Your task to perform on an android device: open app "Microsoft Excel" Image 0: 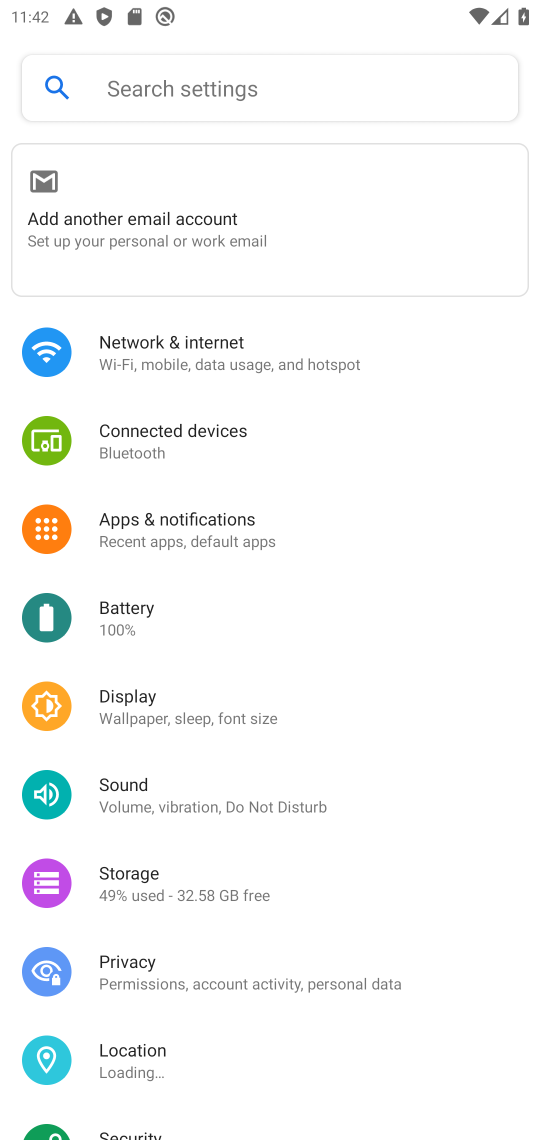
Step 0: drag from (449, 1022) to (458, 549)
Your task to perform on an android device: open app "Microsoft Excel" Image 1: 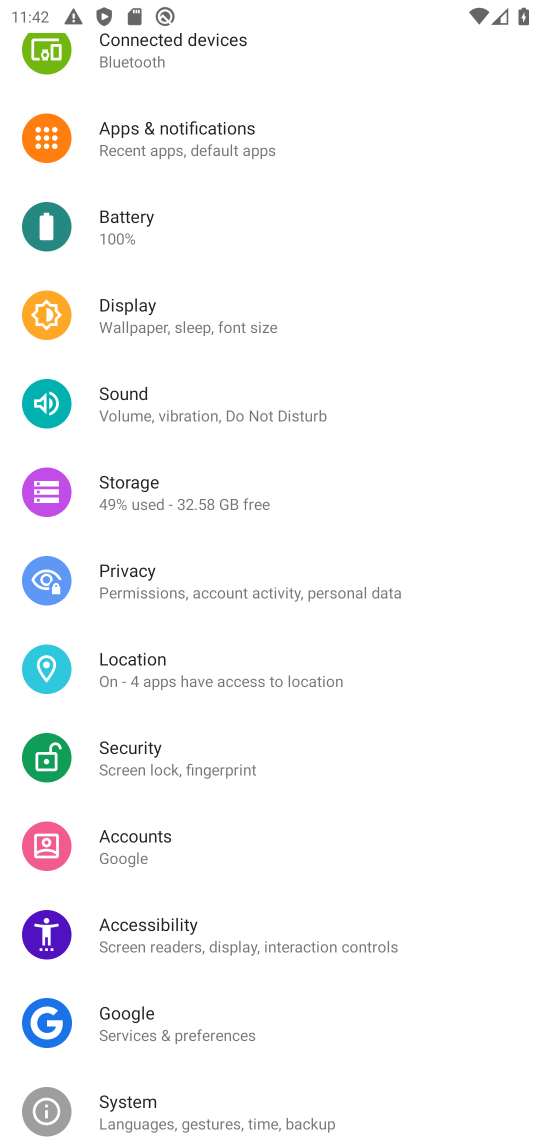
Step 1: drag from (450, 922) to (458, 624)
Your task to perform on an android device: open app "Microsoft Excel" Image 2: 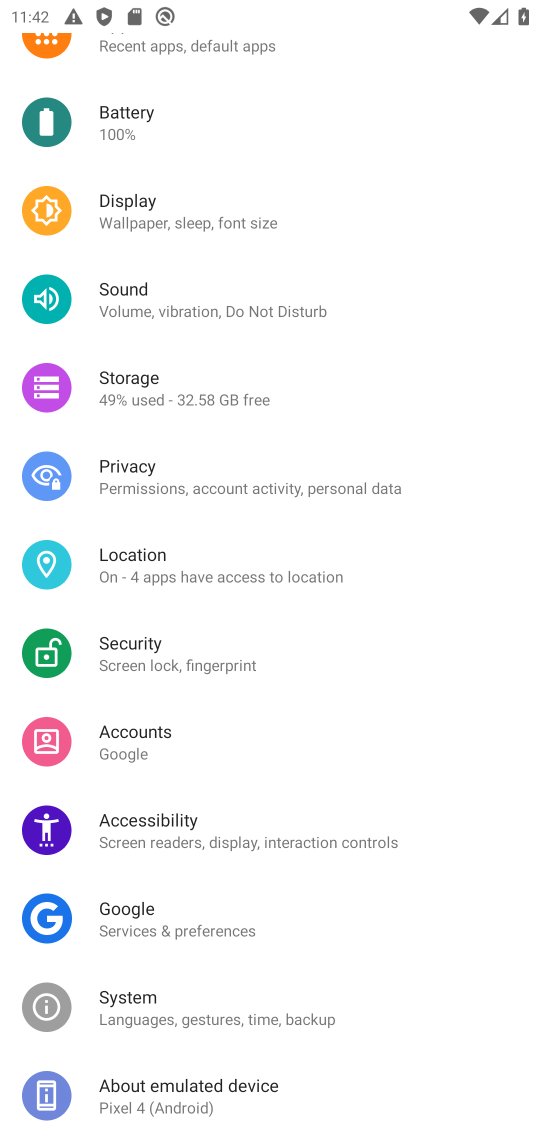
Step 2: drag from (458, 407) to (446, 695)
Your task to perform on an android device: open app "Microsoft Excel" Image 3: 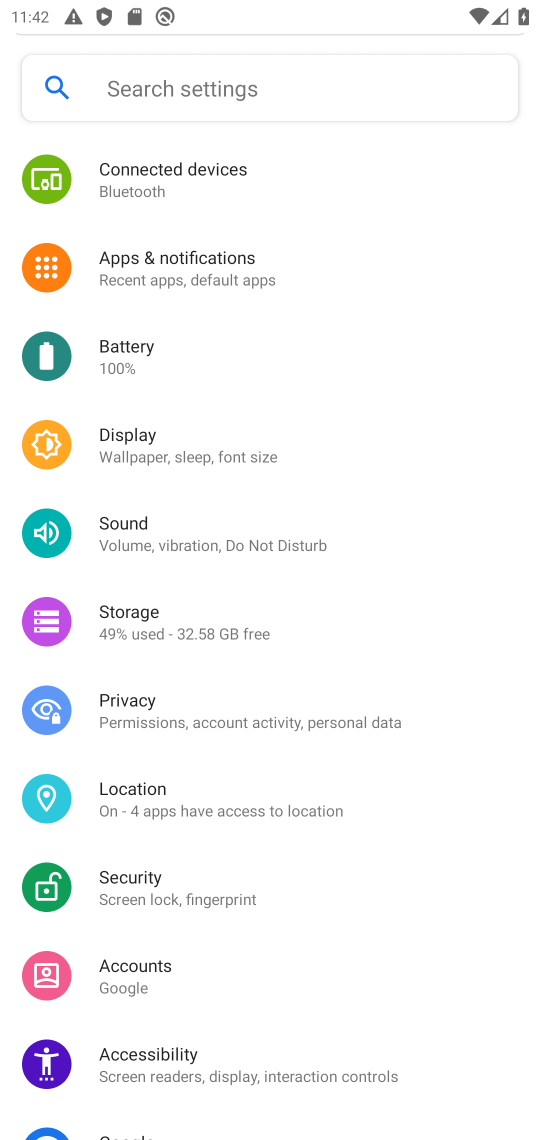
Step 3: drag from (440, 359) to (459, 697)
Your task to perform on an android device: open app "Microsoft Excel" Image 4: 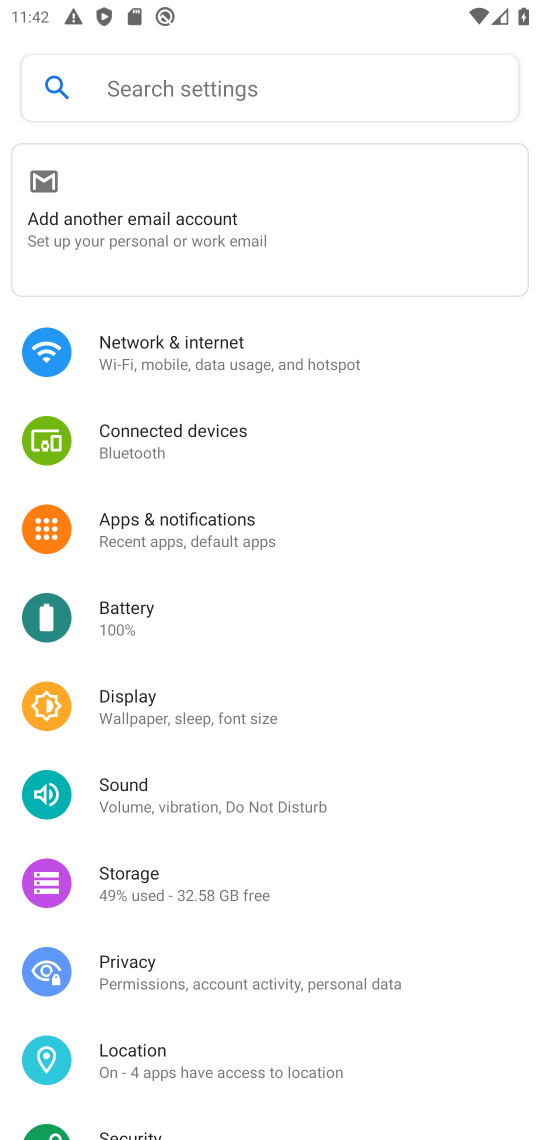
Step 4: press home button
Your task to perform on an android device: open app "Microsoft Excel" Image 5: 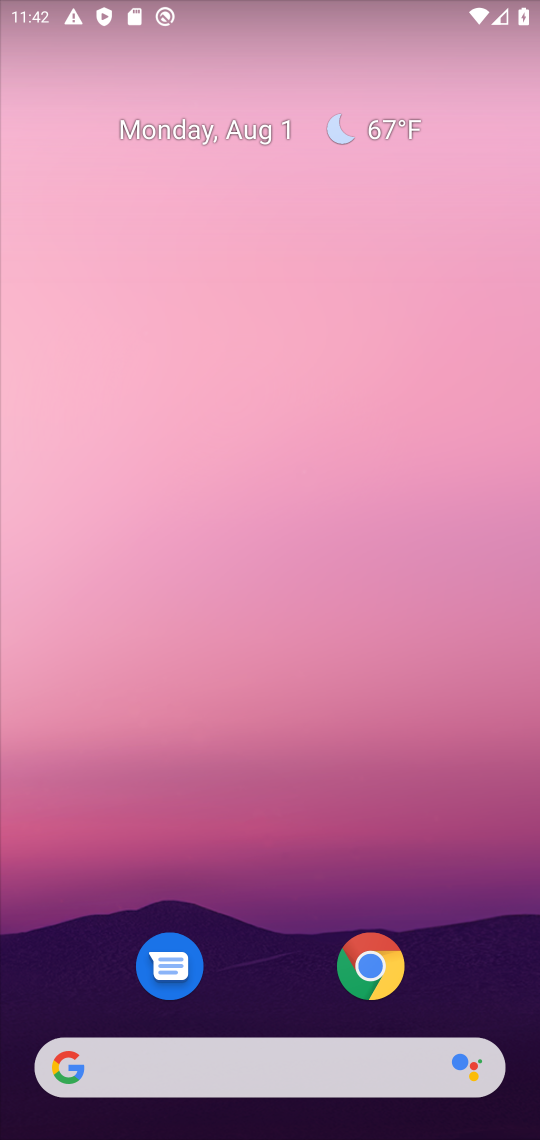
Step 5: drag from (464, 810) to (483, 196)
Your task to perform on an android device: open app "Microsoft Excel" Image 6: 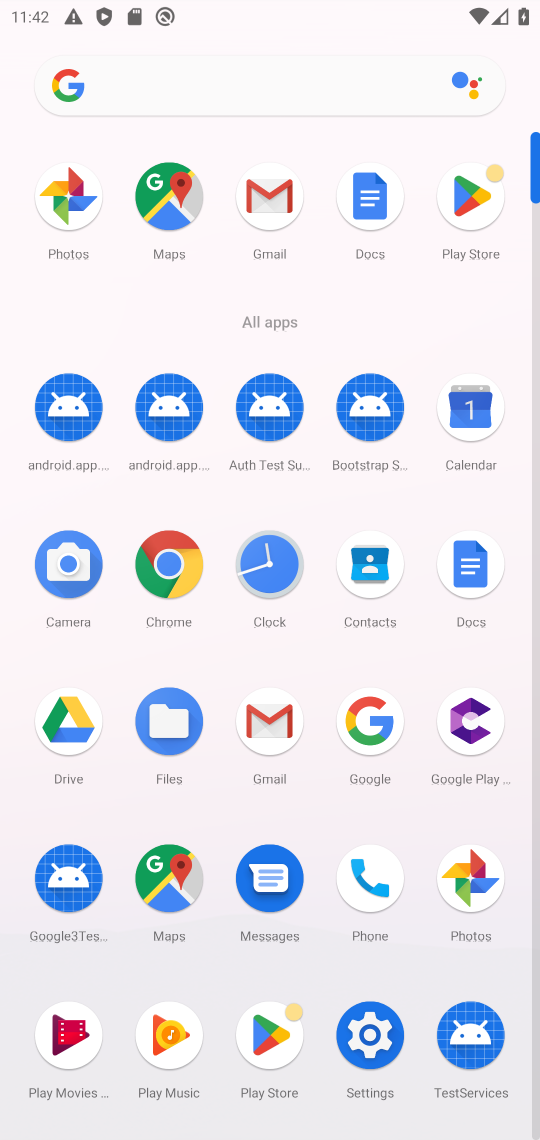
Step 6: click (471, 208)
Your task to perform on an android device: open app "Microsoft Excel" Image 7: 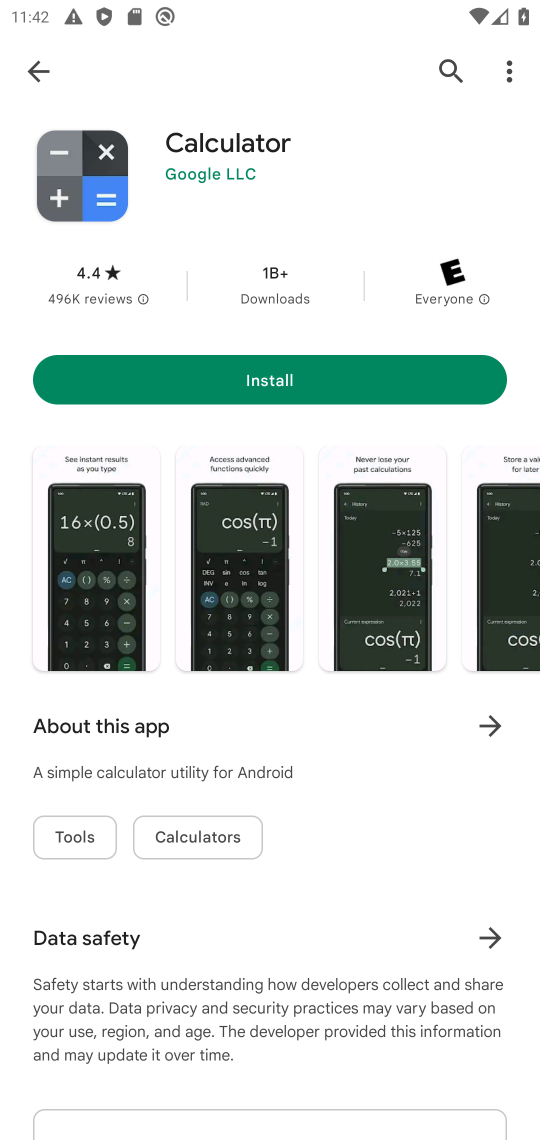
Step 7: click (445, 65)
Your task to perform on an android device: open app "Microsoft Excel" Image 8: 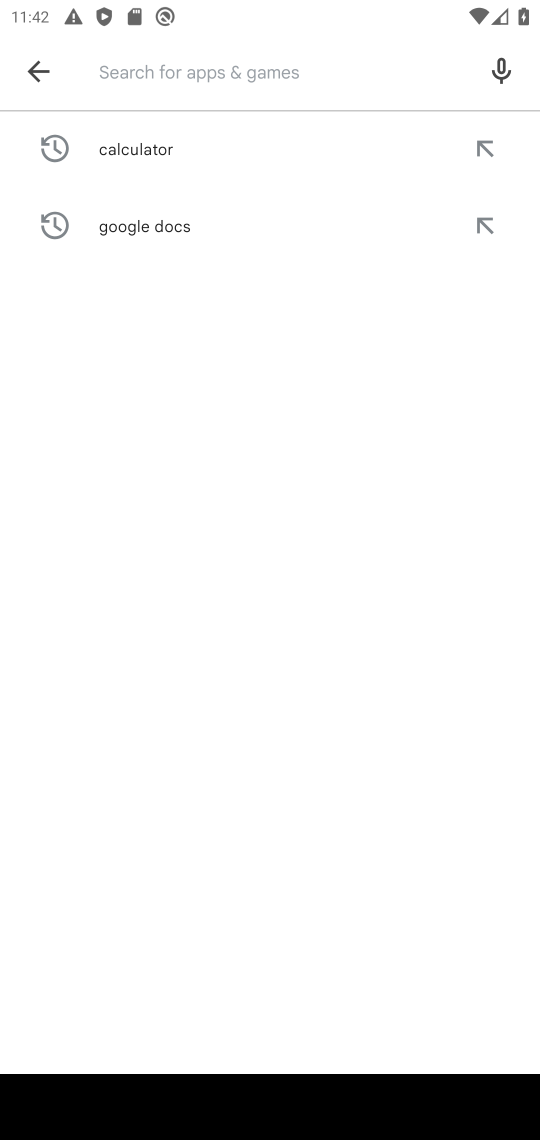
Step 8: click (318, 74)
Your task to perform on an android device: open app "Microsoft Excel" Image 9: 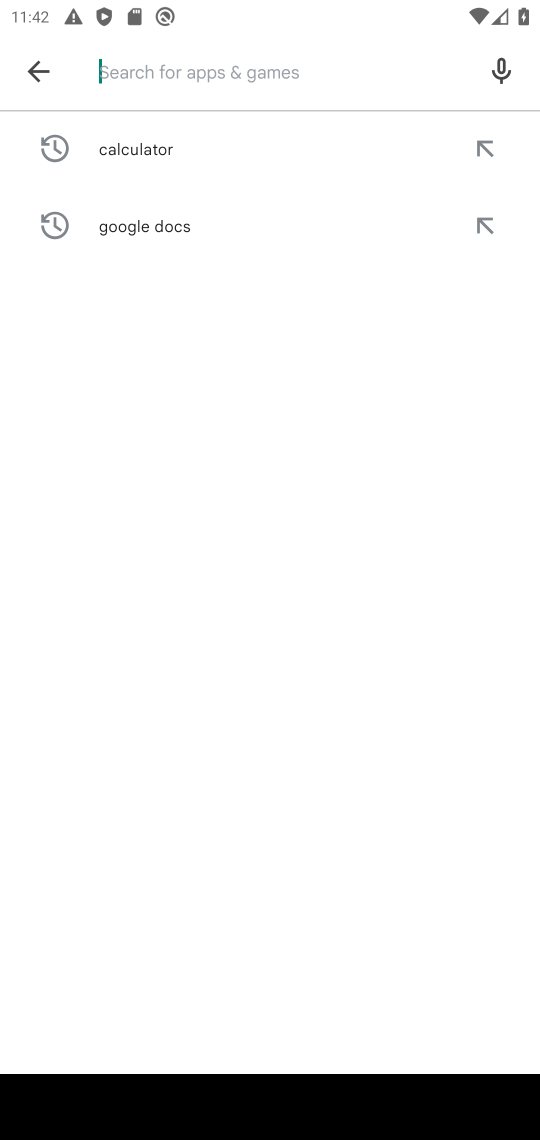
Step 9: type "Microsoft Excel"
Your task to perform on an android device: open app "Microsoft Excel" Image 10: 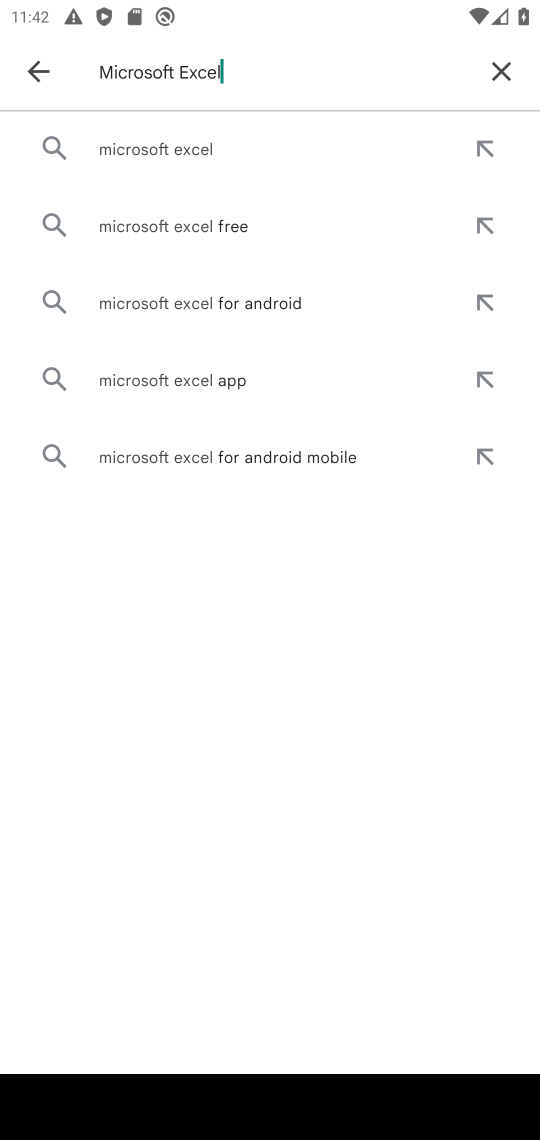
Step 10: click (213, 149)
Your task to perform on an android device: open app "Microsoft Excel" Image 11: 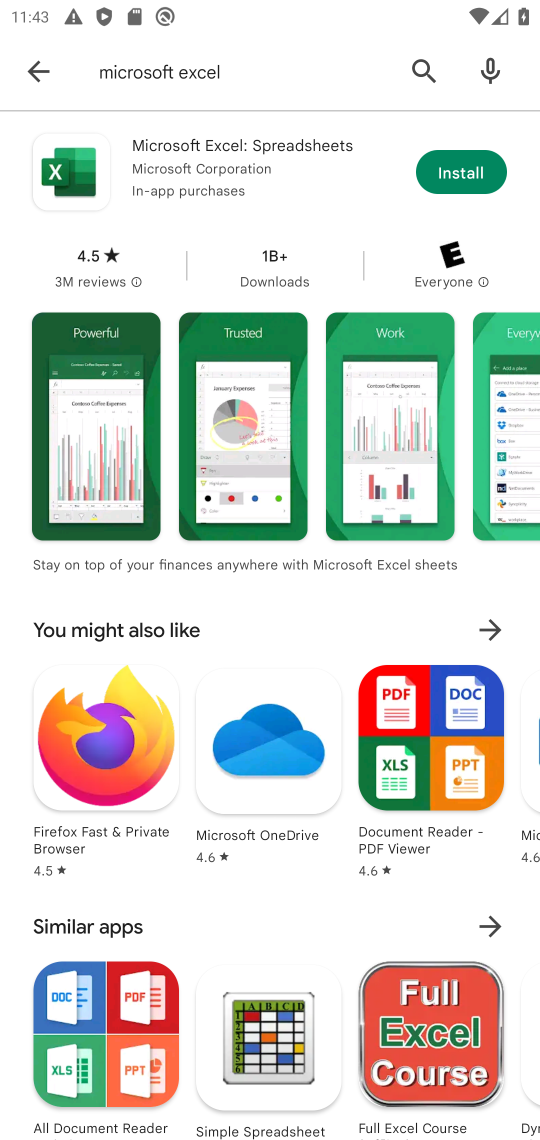
Step 11: task complete